Your task to perform on an android device: change the upload size in google photos Image 0: 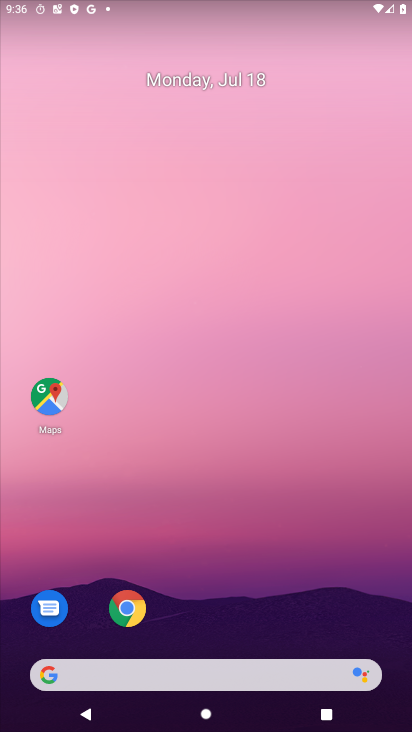
Step 0: drag from (174, 564) to (180, 222)
Your task to perform on an android device: change the upload size in google photos Image 1: 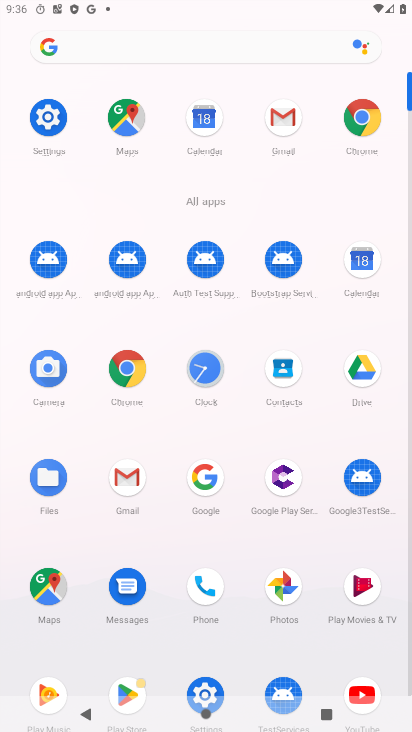
Step 1: click (284, 598)
Your task to perform on an android device: change the upload size in google photos Image 2: 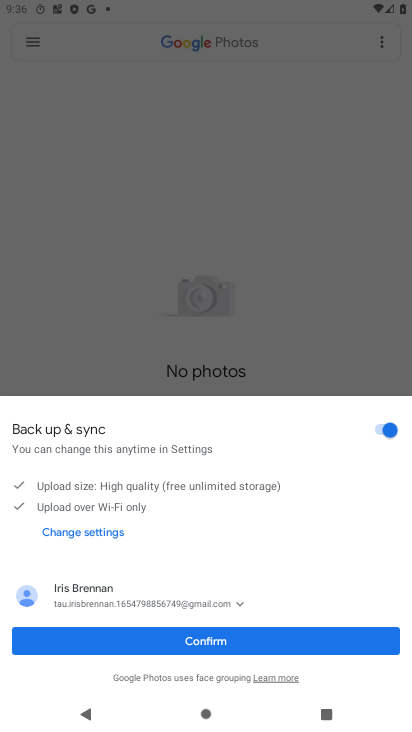
Step 2: click (199, 647)
Your task to perform on an android device: change the upload size in google photos Image 3: 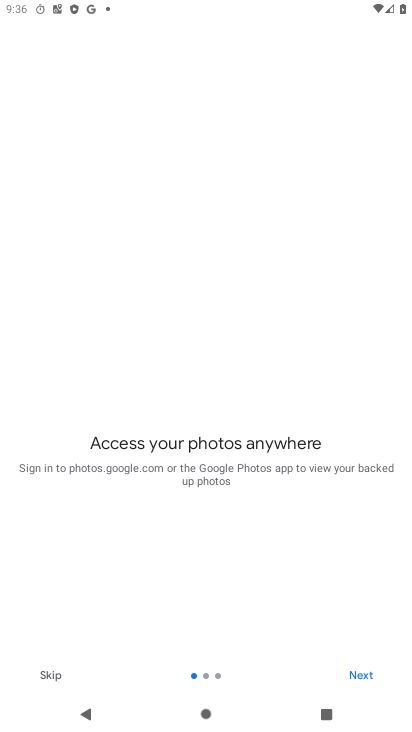
Step 3: click (355, 677)
Your task to perform on an android device: change the upload size in google photos Image 4: 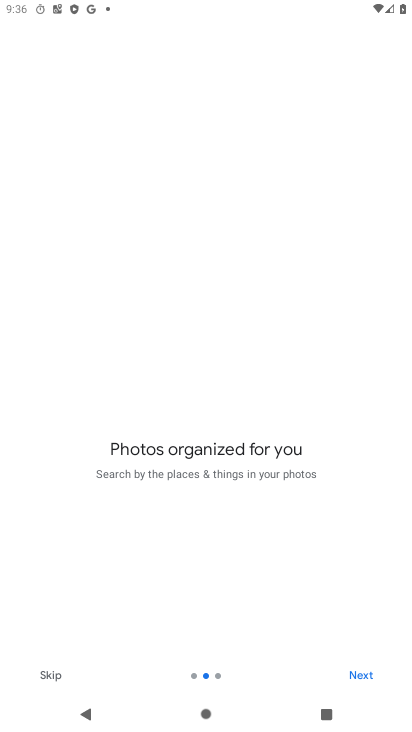
Step 4: click (355, 677)
Your task to perform on an android device: change the upload size in google photos Image 5: 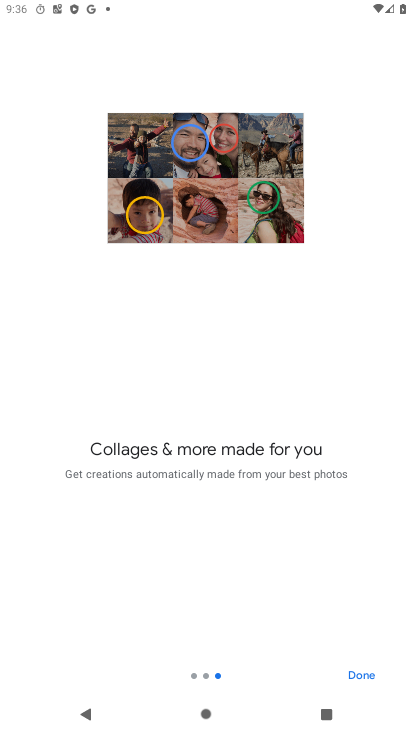
Step 5: click (355, 677)
Your task to perform on an android device: change the upload size in google photos Image 6: 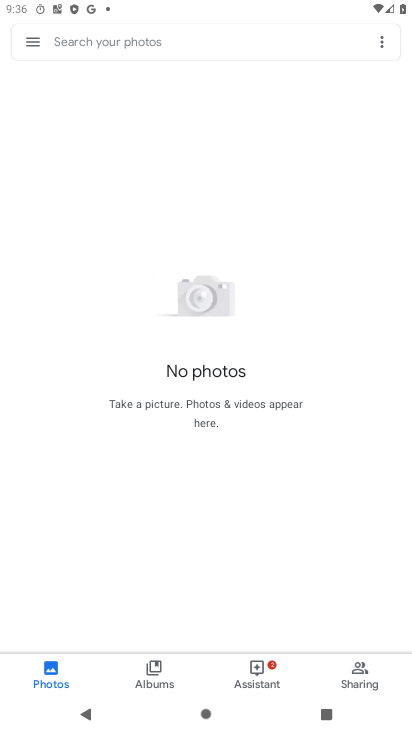
Step 6: click (33, 44)
Your task to perform on an android device: change the upload size in google photos Image 7: 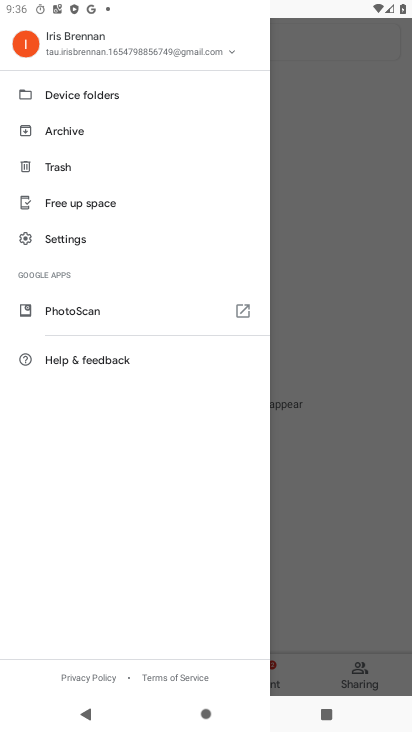
Step 7: click (55, 238)
Your task to perform on an android device: change the upload size in google photos Image 8: 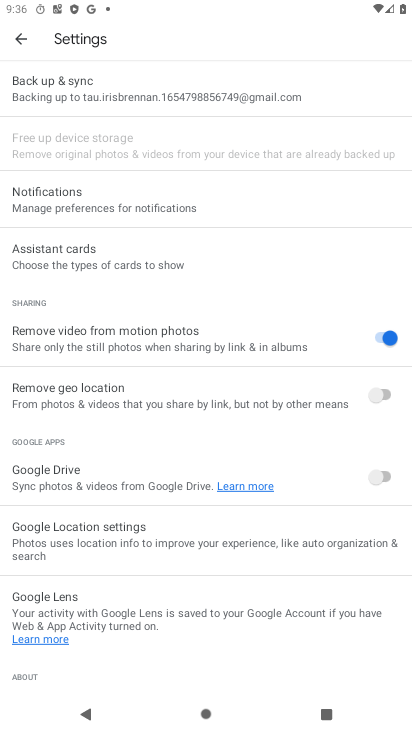
Step 8: click (60, 95)
Your task to perform on an android device: change the upload size in google photos Image 9: 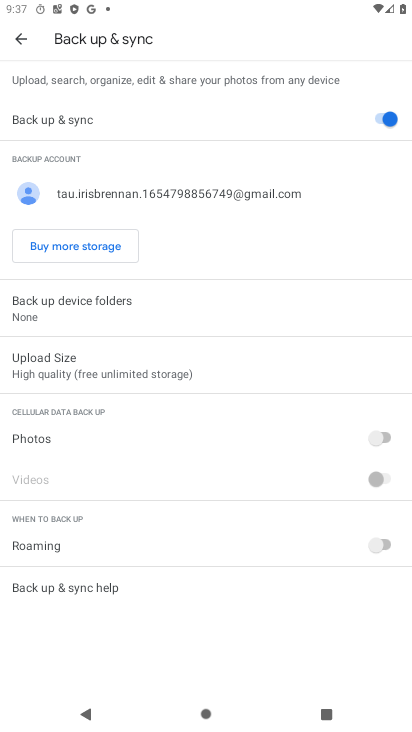
Step 9: click (34, 368)
Your task to perform on an android device: change the upload size in google photos Image 10: 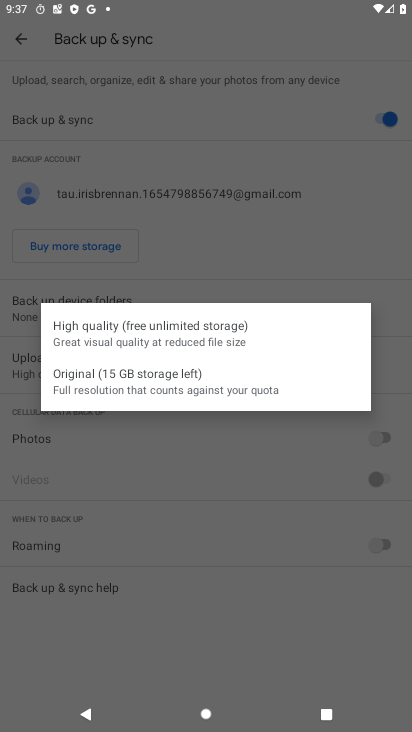
Step 10: click (74, 378)
Your task to perform on an android device: change the upload size in google photos Image 11: 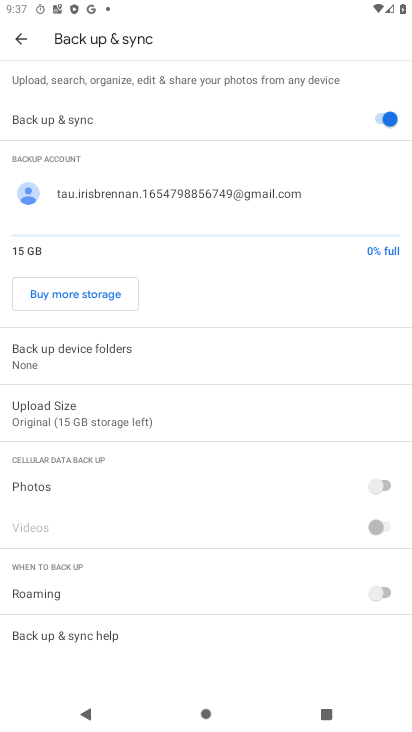
Step 11: task complete